Your task to perform on an android device: Turn on the flashlight Image 0: 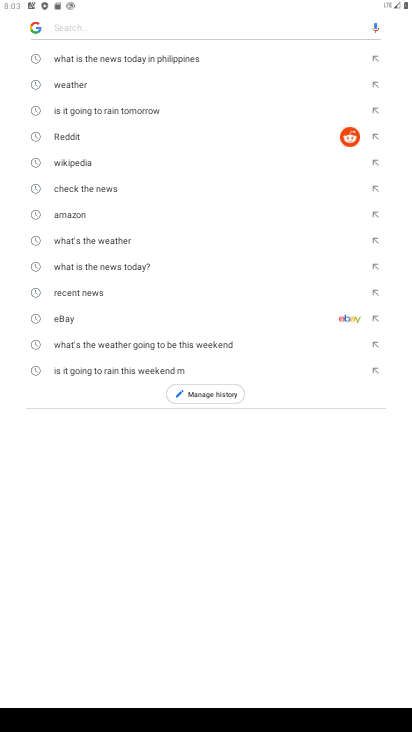
Step 0: press home button
Your task to perform on an android device: Turn on the flashlight Image 1: 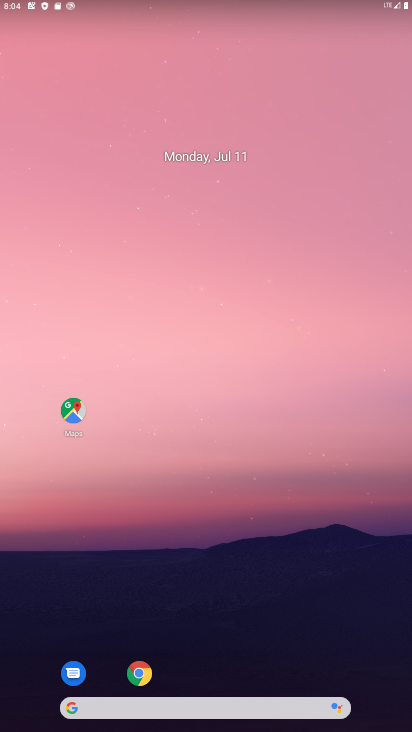
Step 1: drag from (230, 35) to (187, 456)
Your task to perform on an android device: Turn on the flashlight Image 2: 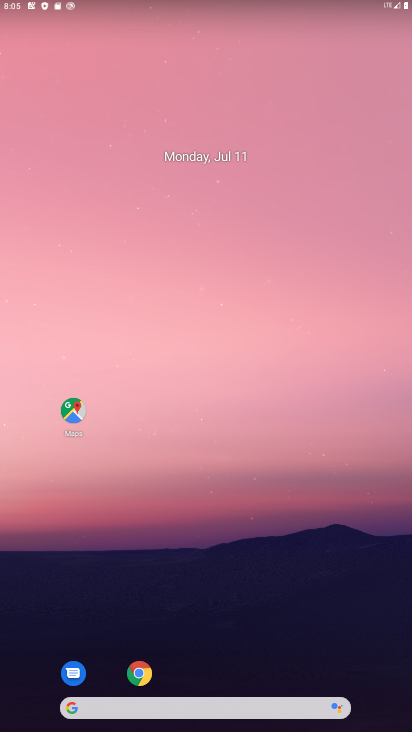
Step 2: drag from (319, 8) to (268, 558)
Your task to perform on an android device: Turn on the flashlight Image 3: 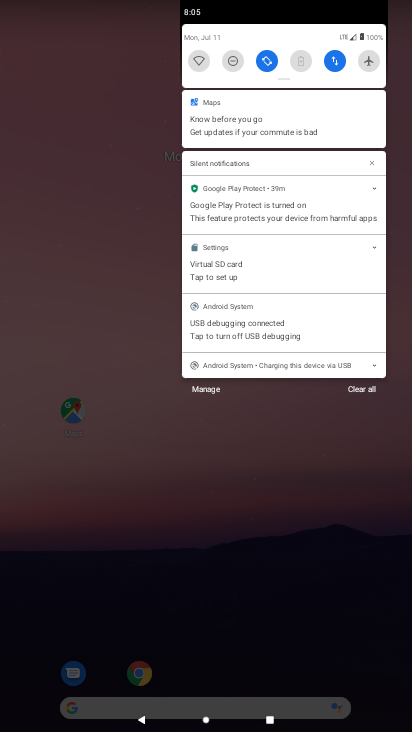
Step 3: drag from (284, 59) to (284, 474)
Your task to perform on an android device: Turn on the flashlight Image 4: 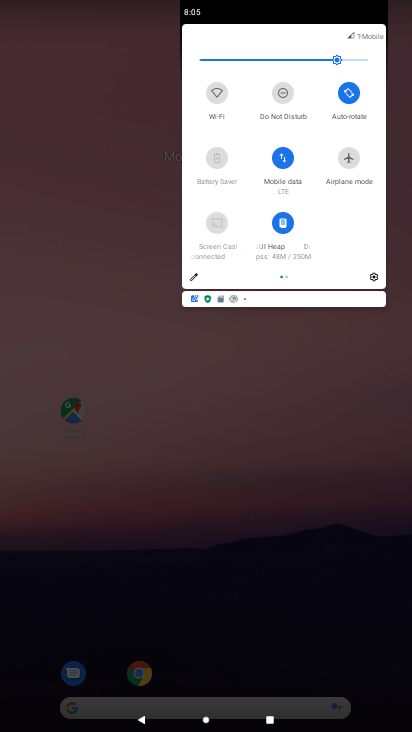
Step 4: drag from (352, 220) to (74, 256)
Your task to perform on an android device: Turn on the flashlight Image 5: 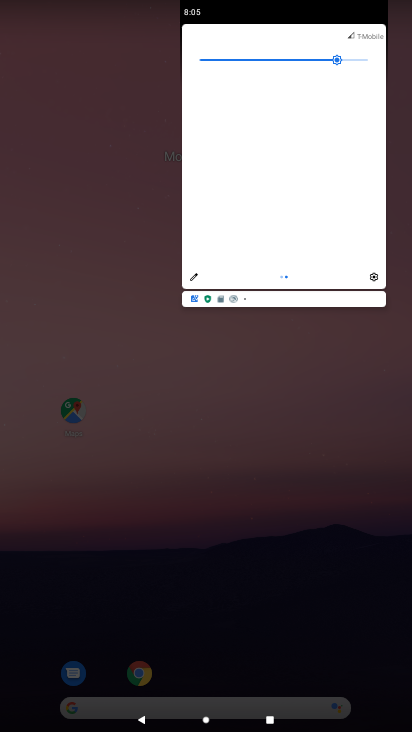
Step 5: click (194, 276)
Your task to perform on an android device: Turn on the flashlight Image 6: 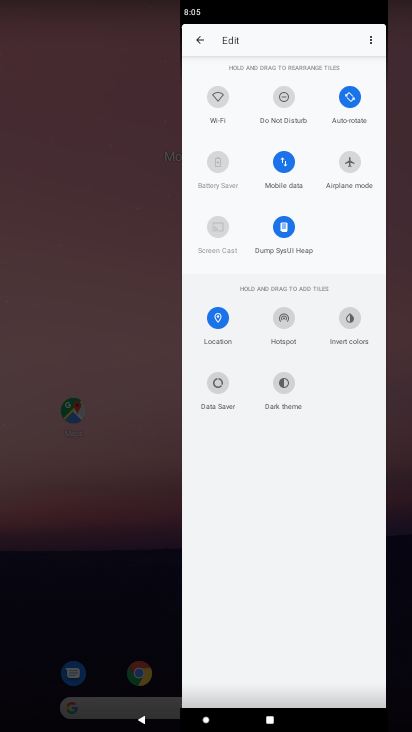
Step 6: task complete